Your task to perform on an android device: open wifi settings Image 0: 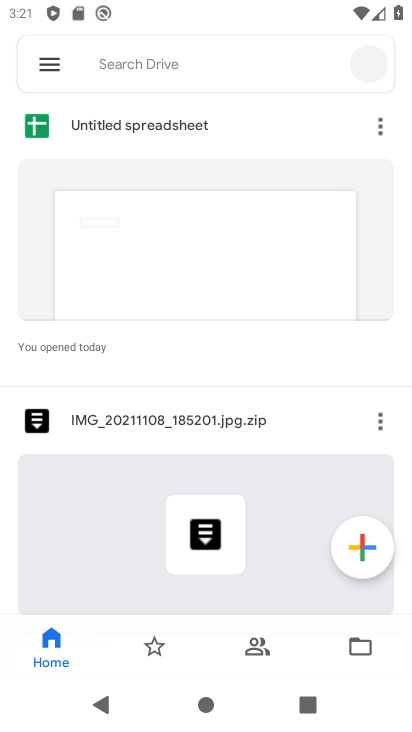
Step 0: drag from (341, 558) to (343, 66)
Your task to perform on an android device: open wifi settings Image 1: 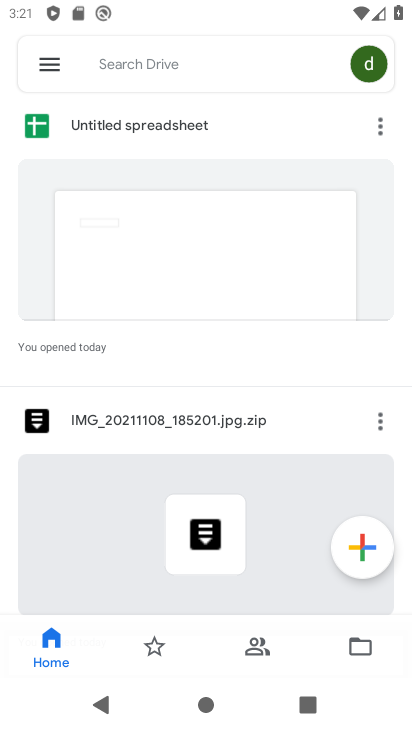
Step 1: press home button
Your task to perform on an android device: open wifi settings Image 2: 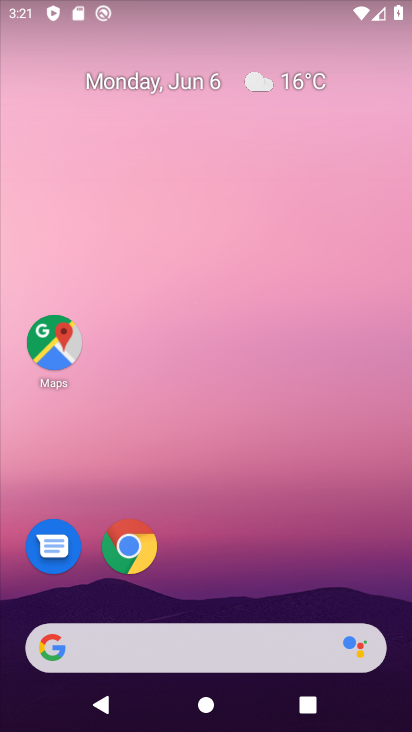
Step 2: drag from (291, 422) to (295, 16)
Your task to perform on an android device: open wifi settings Image 3: 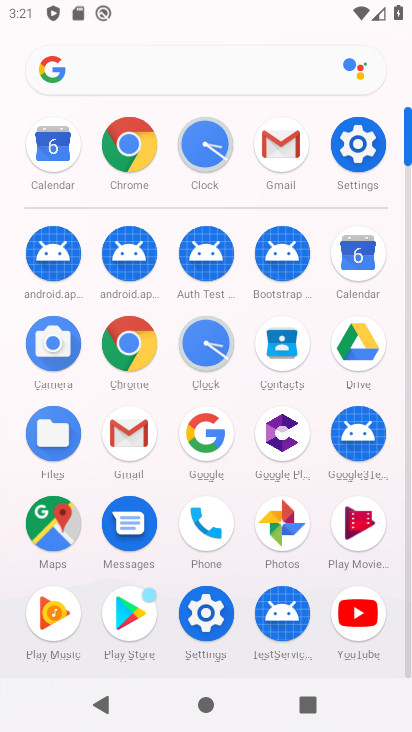
Step 3: click (363, 147)
Your task to perform on an android device: open wifi settings Image 4: 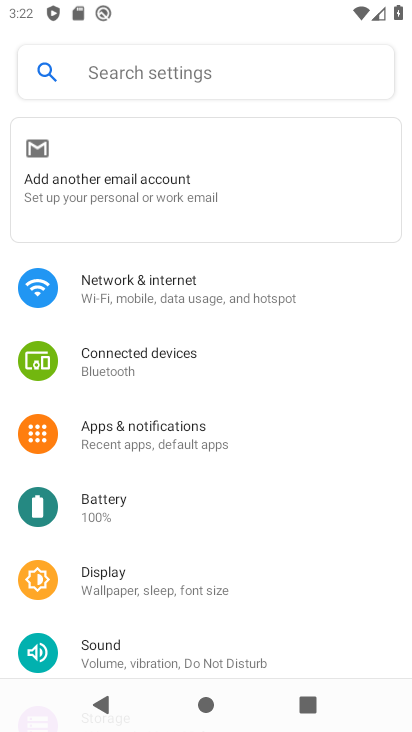
Step 4: click (134, 296)
Your task to perform on an android device: open wifi settings Image 5: 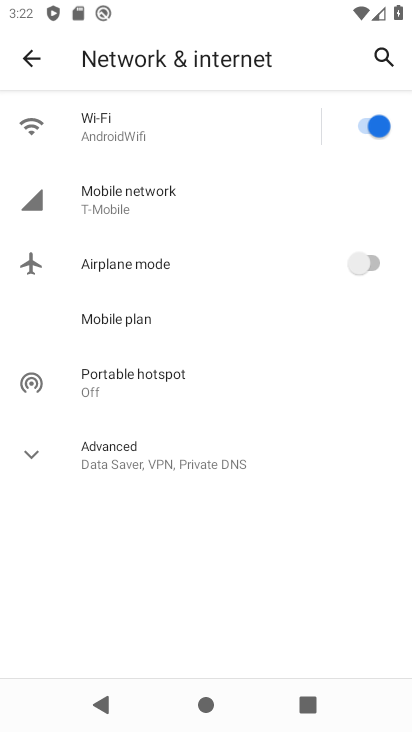
Step 5: click (184, 147)
Your task to perform on an android device: open wifi settings Image 6: 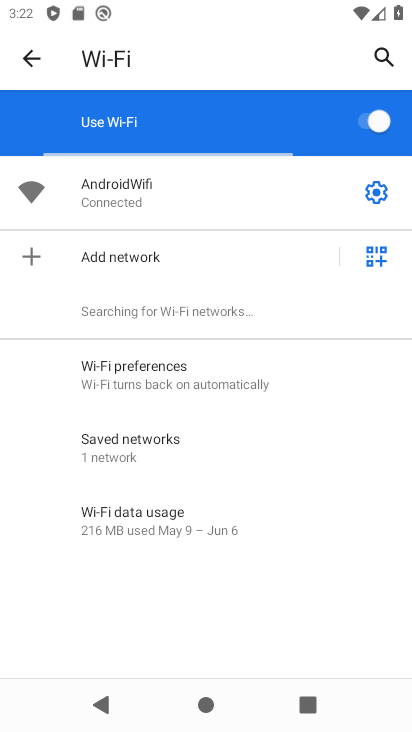
Step 6: task complete